Your task to perform on an android device: Open the phone app and click the voicemail tab. Image 0: 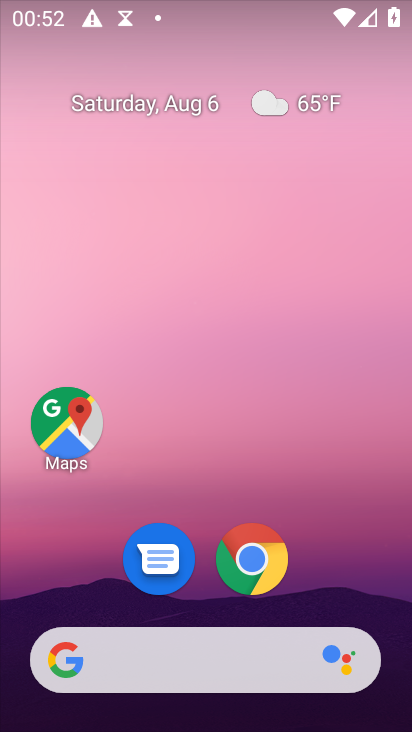
Step 0: drag from (375, 605) to (278, 31)
Your task to perform on an android device: Open the phone app and click the voicemail tab. Image 1: 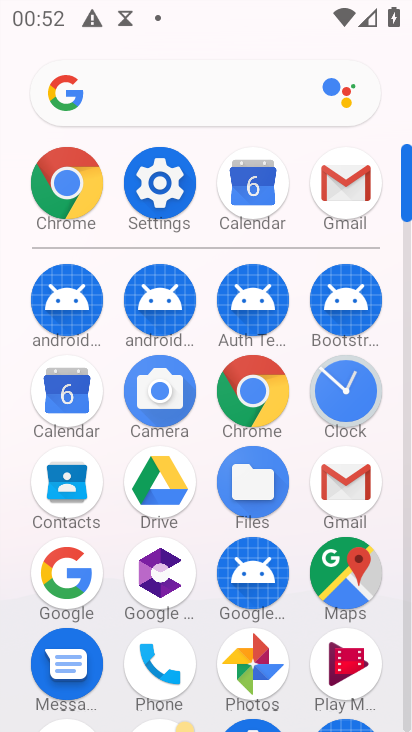
Step 1: click (164, 667)
Your task to perform on an android device: Open the phone app and click the voicemail tab. Image 2: 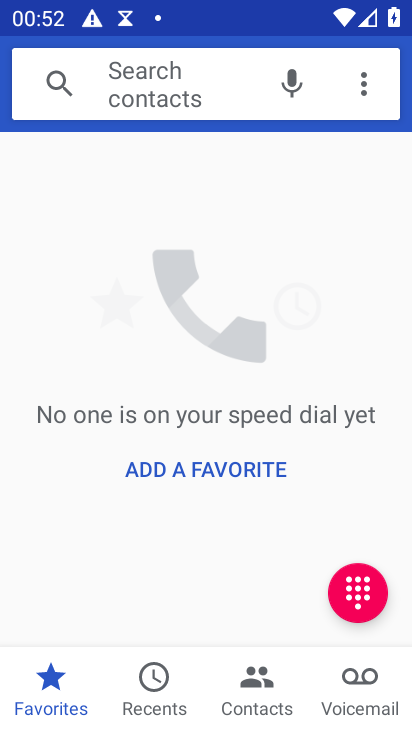
Step 2: click (376, 695)
Your task to perform on an android device: Open the phone app and click the voicemail tab. Image 3: 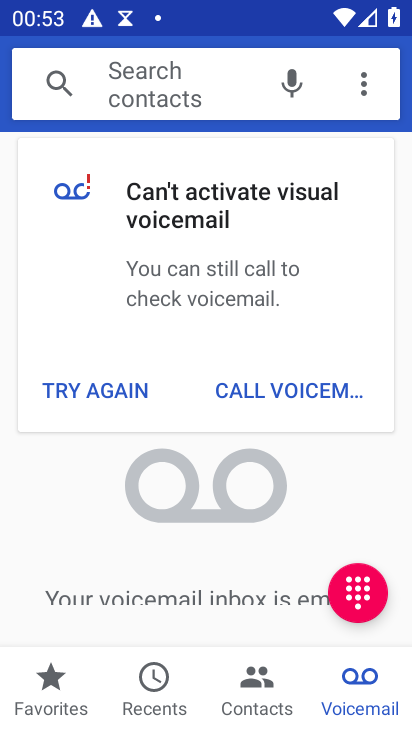
Step 3: task complete